Your task to perform on an android device: Show me productivity apps on the Play Store Image 0: 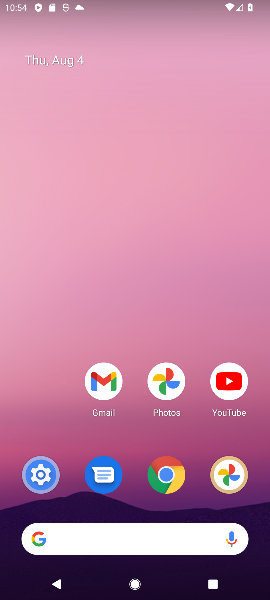
Step 0: drag from (148, 449) to (127, 80)
Your task to perform on an android device: Show me productivity apps on the Play Store Image 1: 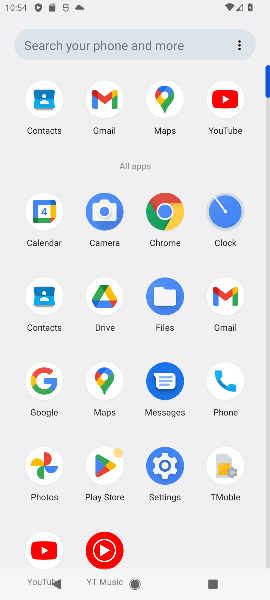
Step 1: click (101, 467)
Your task to perform on an android device: Show me productivity apps on the Play Store Image 2: 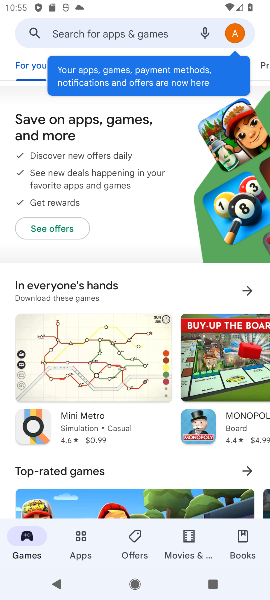
Step 2: drag from (39, 68) to (9, 69)
Your task to perform on an android device: Show me productivity apps on the Play Store Image 3: 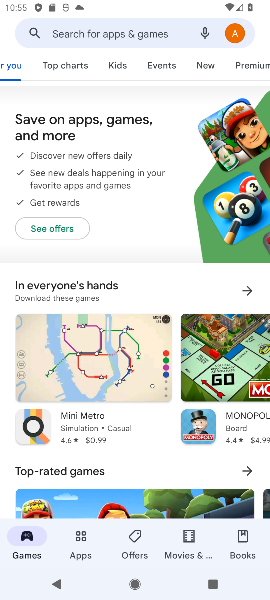
Step 3: click (77, 544)
Your task to perform on an android device: Show me productivity apps on the Play Store Image 4: 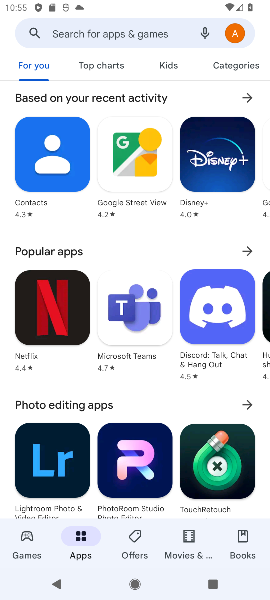
Step 4: click (217, 64)
Your task to perform on an android device: Show me productivity apps on the Play Store Image 5: 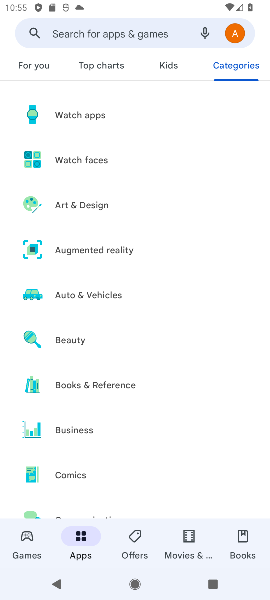
Step 5: drag from (219, 479) to (188, 222)
Your task to perform on an android device: Show me productivity apps on the Play Store Image 6: 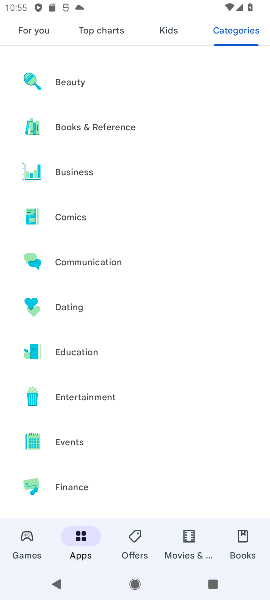
Step 6: drag from (222, 456) to (185, 224)
Your task to perform on an android device: Show me productivity apps on the Play Store Image 7: 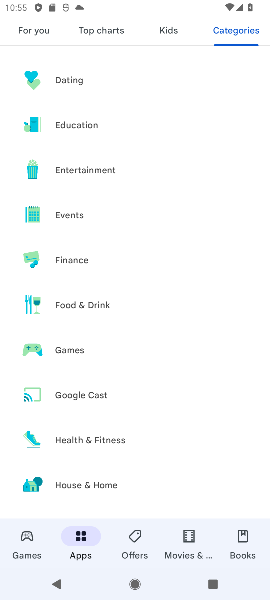
Step 7: drag from (148, 444) to (102, 263)
Your task to perform on an android device: Show me productivity apps on the Play Store Image 8: 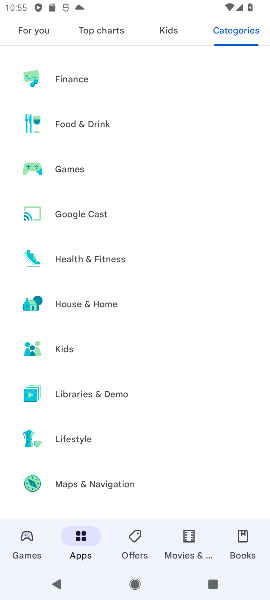
Step 8: drag from (157, 452) to (133, 271)
Your task to perform on an android device: Show me productivity apps on the Play Store Image 9: 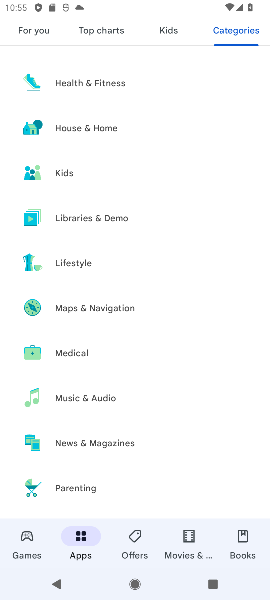
Step 9: drag from (139, 451) to (123, 205)
Your task to perform on an android device: Show me productivity apps on the Play Store Image 10: 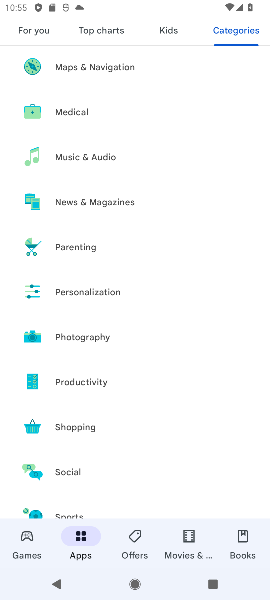
Step 10: click (92, 382)
Your task to perform on an android device: Show me productivity apps on the Play Store Image 11: 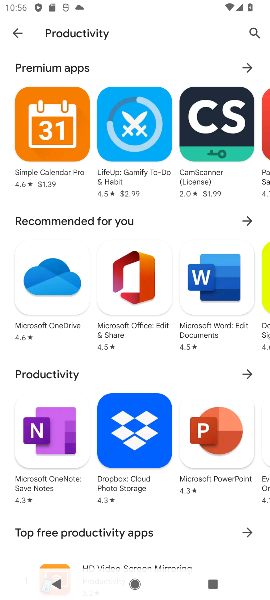
Step 11: task complete